Your task to perform on an android device: Clear all items from cart on target. Image 0: 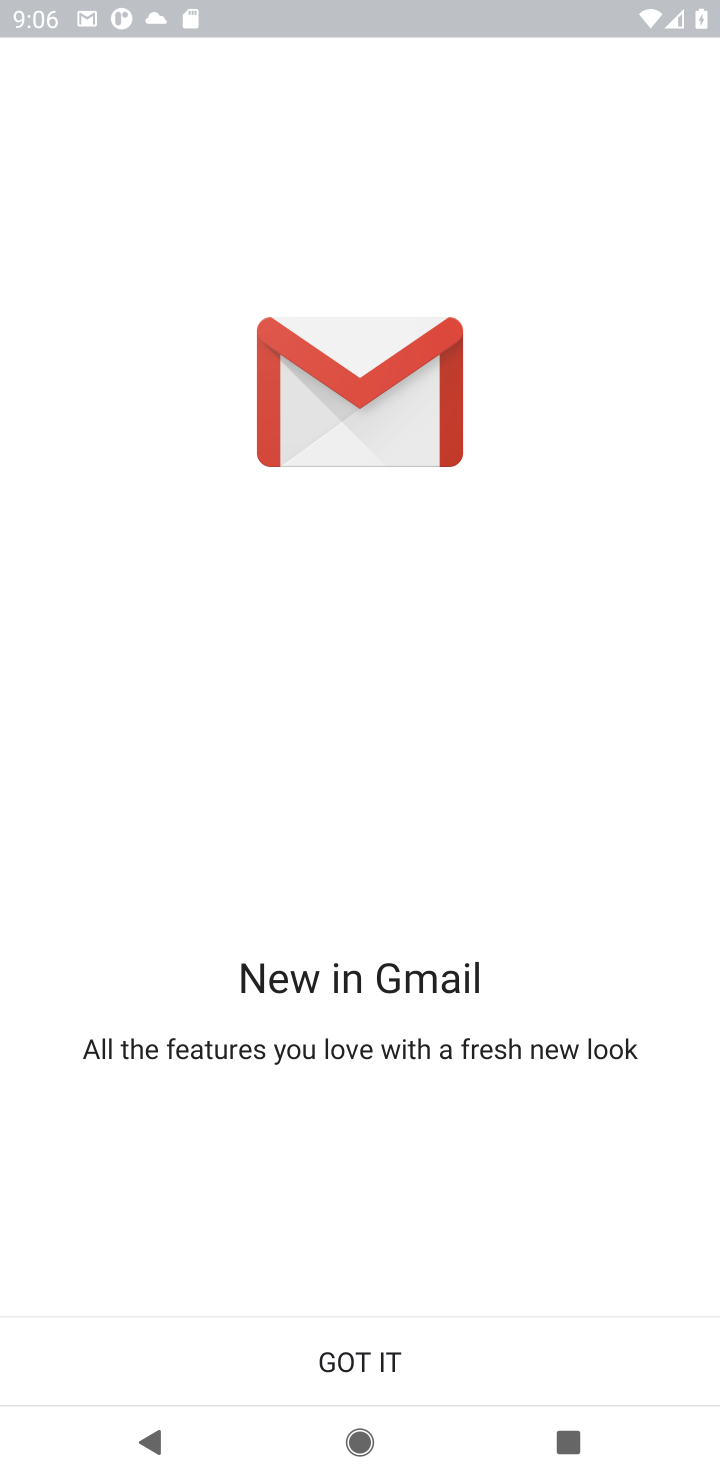
Step 0: press home button
Your task to perform on an android device: Clear all items from cart on target. Image 1: 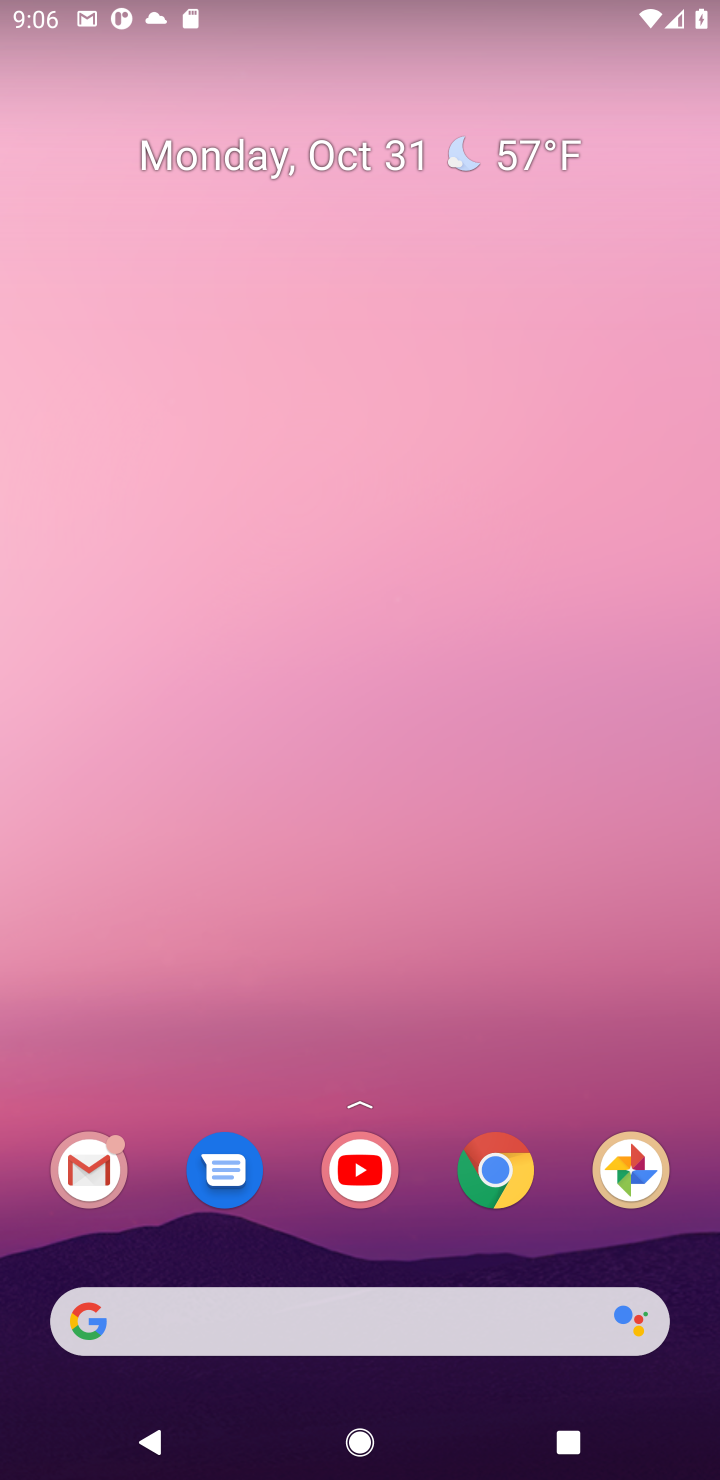
Step 1: click (501, 1187)
Your task to perform on an android device: Clear all items from cart on target. Image 2: 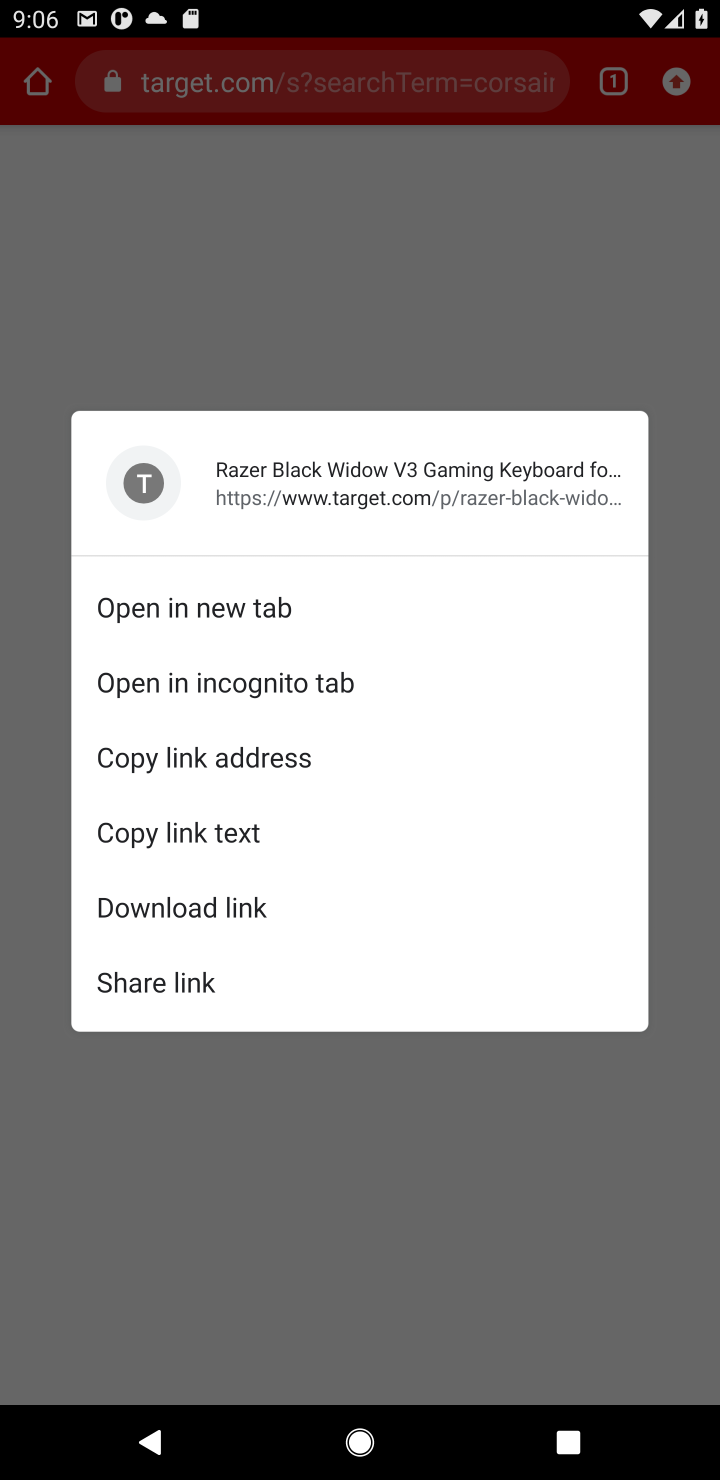
Step 2: press back button
Your task to perform on an android device: Clear all items from cart on target. Image 3: 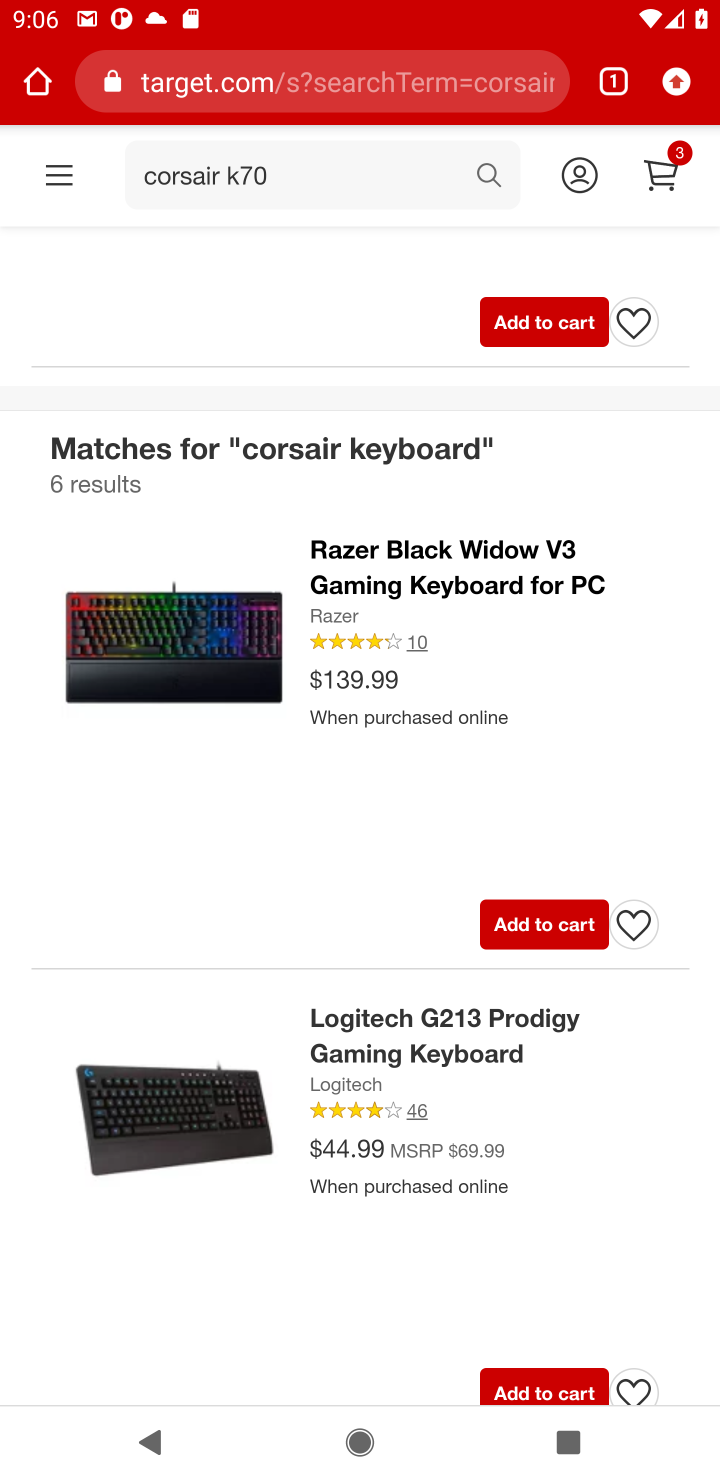
Step 3: click (661, 179)
Your task to perform on an android device: Clear all items from cart on target. Image 4: 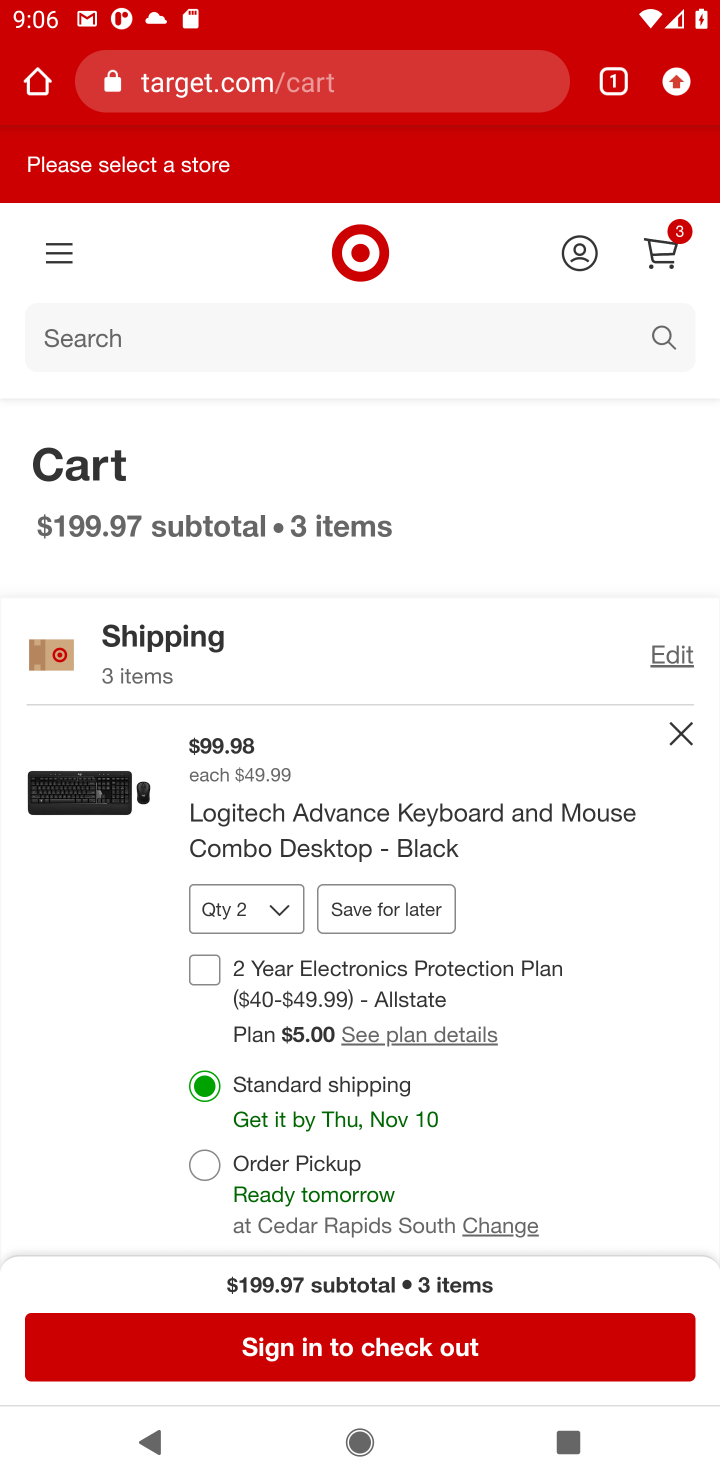
Step 4: click (676, 735)
Your task to perform on an android device: Clear all items from cart on target. Image 5: 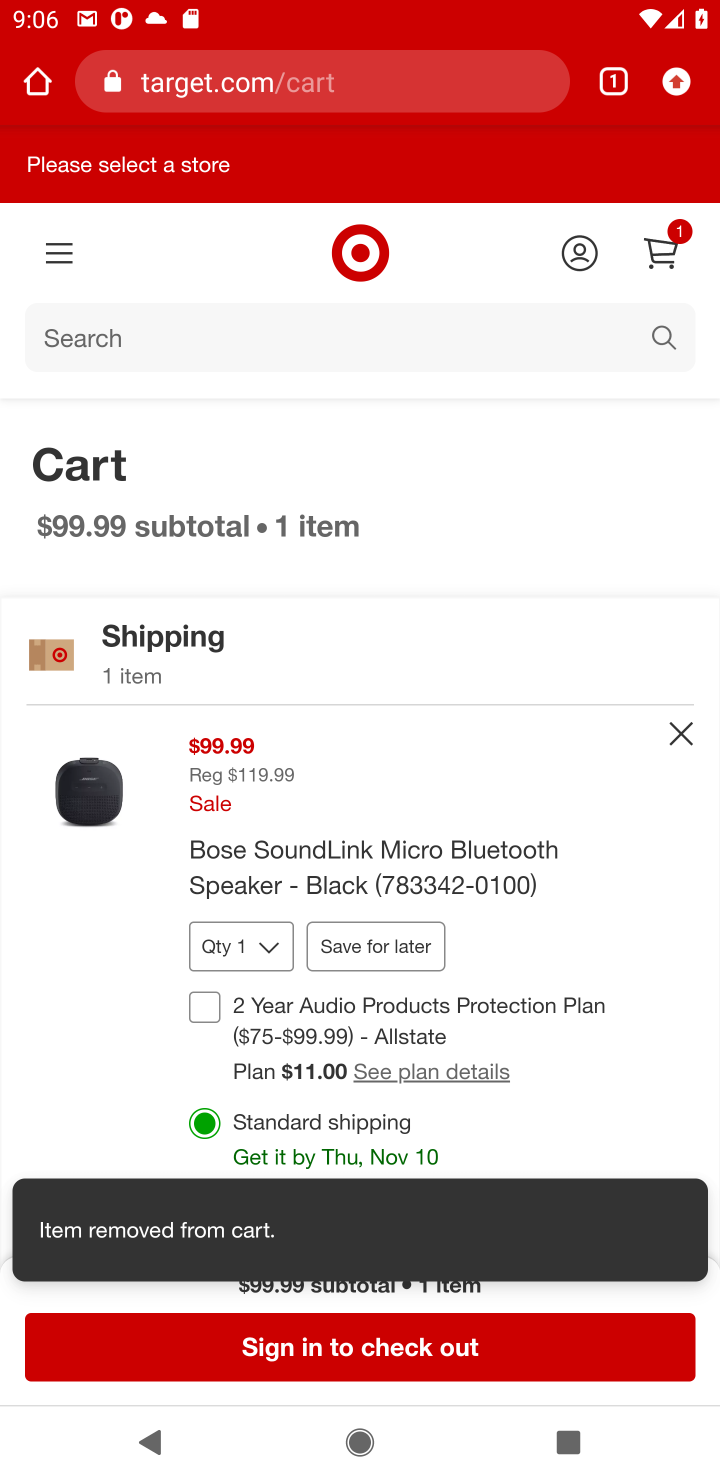
Step 5: click (676, 735)
Your task to perform on an android device: Clear all items from cart on target. Image 6: 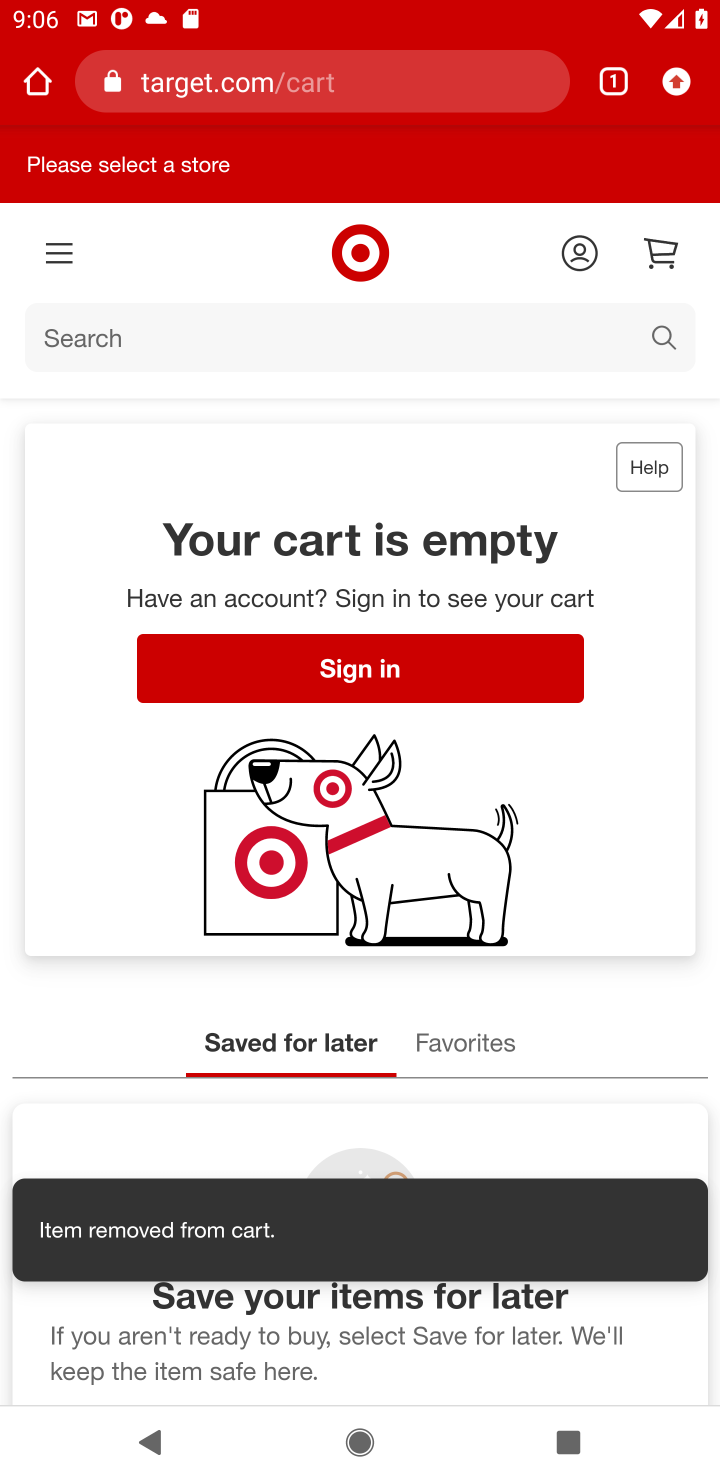
Step 6: task complete